Your task to perform on an android device: Open accessibility settings Image 0: 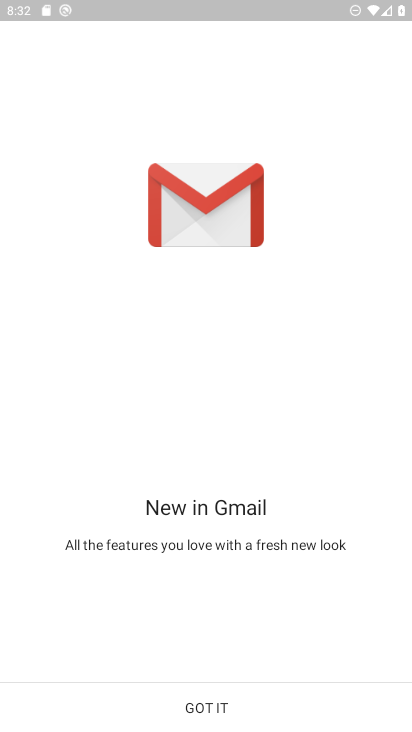
Step 0: press home button
Your task to perform on an android device: Open accessibility settings Image 1: 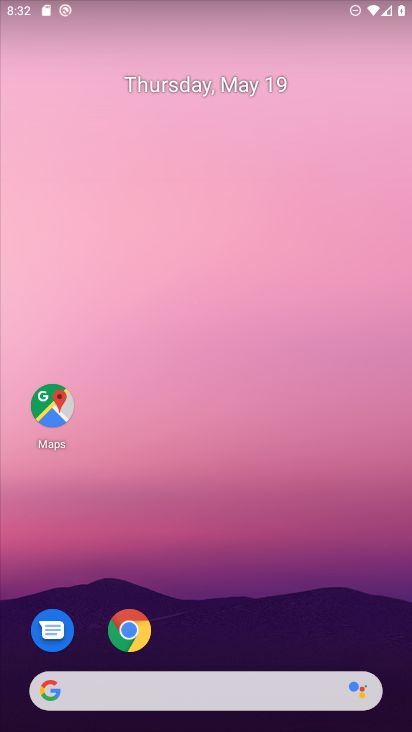
Step 1: drag from (259, 648) to (276, 274)
Your task to perform on an android device: Open accessibility settings Image 2: 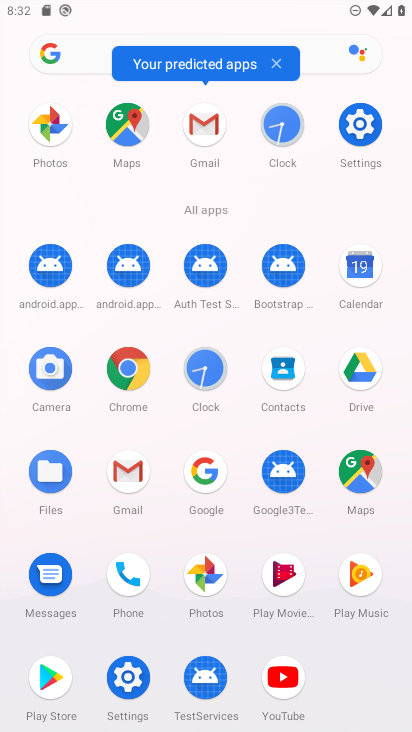
Step 2: click (355, 128)
Your task to perform on an android device: Open accessibility settings Image 3: 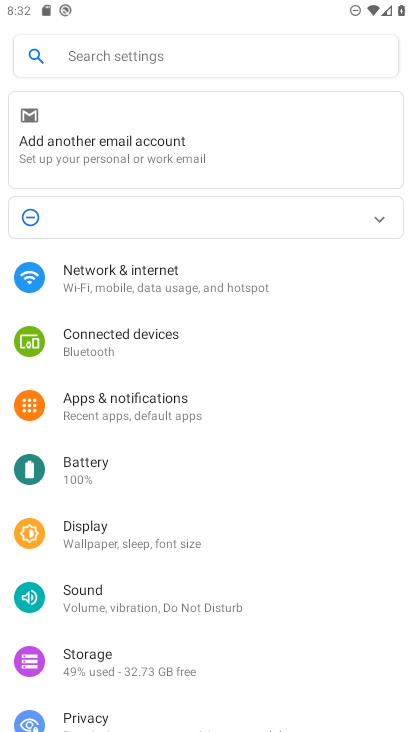
Step 3: drag from (94, 647) to (162, 266)
Your task to perform on an android device: Open accessibility settings Image 4: 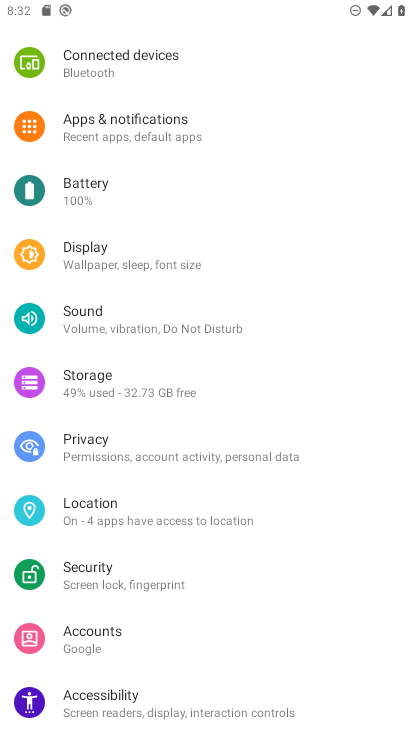
Step 4: click (111, 704)
Your task to perform on an android device: Open accessibility settings Image 5: 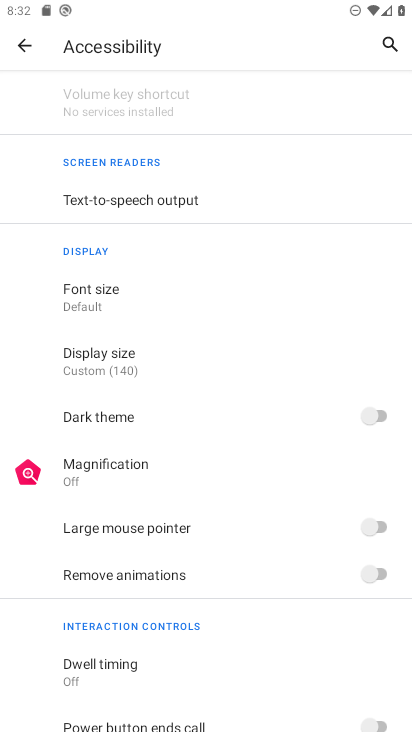
Step 5: task complete